Your task to perform on an android device: Go to display settings Image 0: 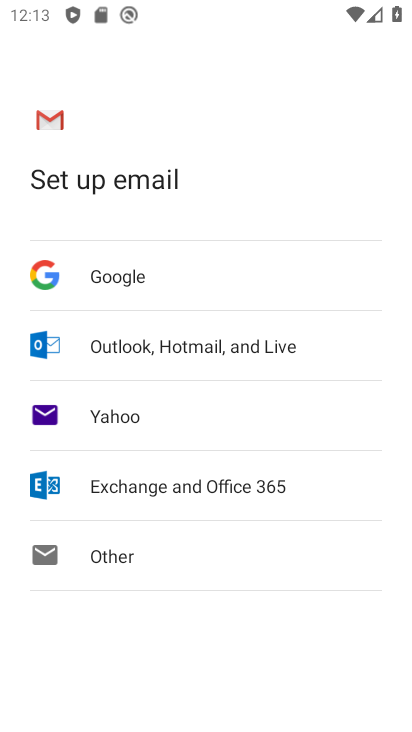
Step 0: press home button
Your task to perform on an android device: Go to display settings Image 1: 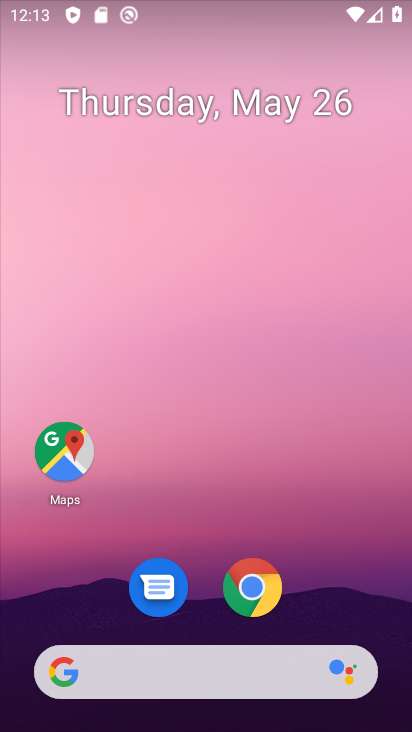
Step 1: drag from (385, 581) to (384, 280)
Your task to perform on an android device: Go to display settings Image 2: 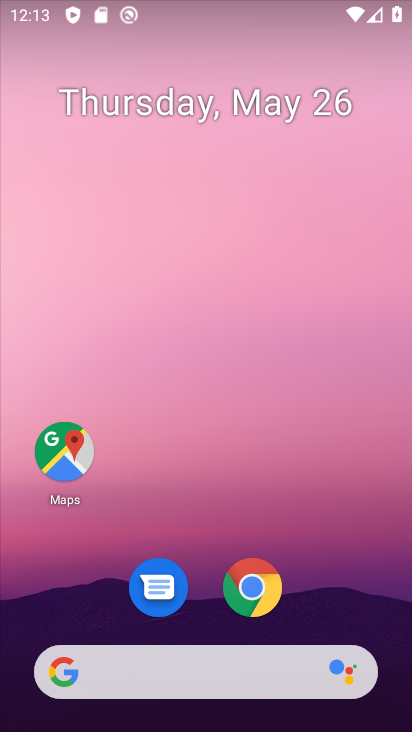
Step 2: drag from (365, 622) to (374, 171)
Your task to perform on an android device: Go to display settings Image 3: 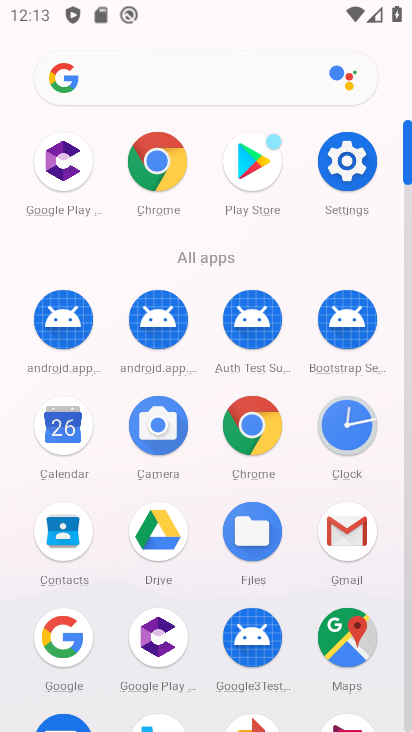
Step 3: click (350, 172)
Your task to perform on an android device: Go to display settings Image 4: 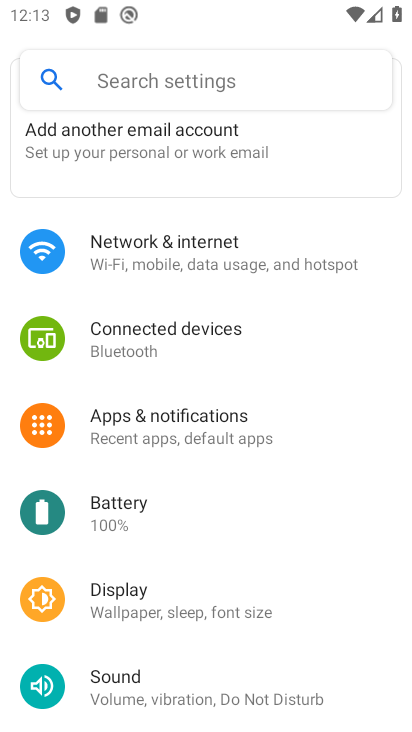
Step 4: drag from (337, 529) to (357, 424)
Your task to perform on an android device: Go to display settings Image 5: 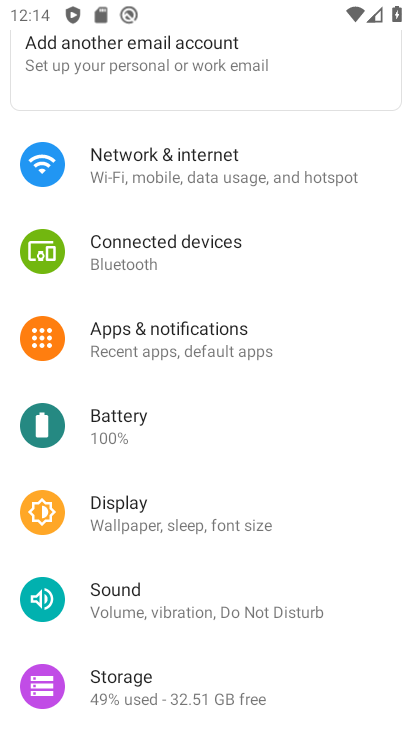
Step 5: drag from (356, 610) to (356, 482)
Your task to perform on an android device: Go to display settings Image 6: 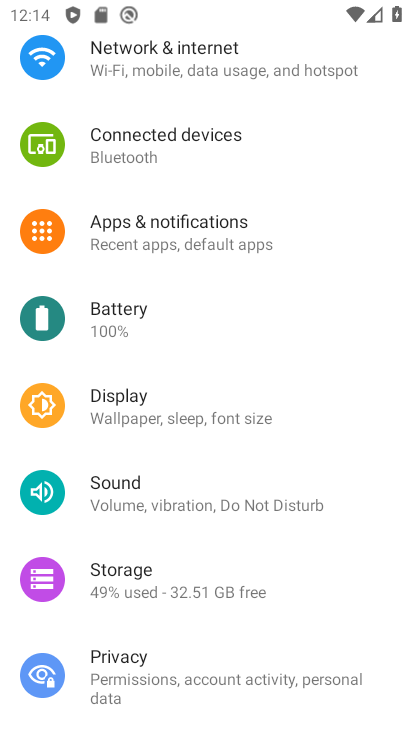
Step 6: drag from (341, 624) to (359, 520)
Your task to perform on an android device: Go to display settings Image 7: 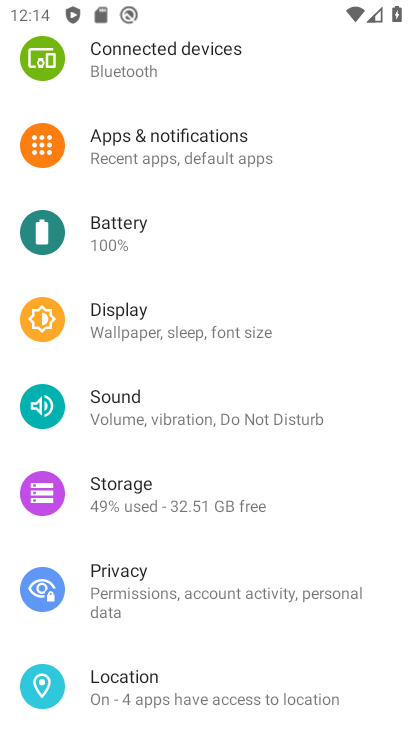
Step 7: drag from (368, 626) to (372, 519)
Your task to perform on an android device: Go to display settings Image 8: 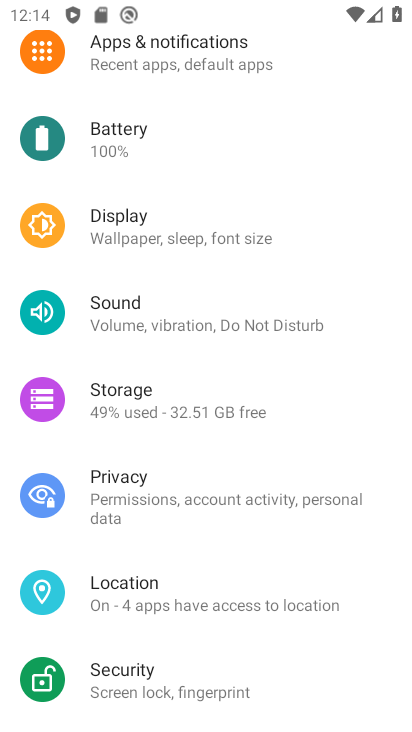
Step 8: drag from (365, 604) to (370, 511)
Your task to perform on an android device: Go to display settings Image 9: 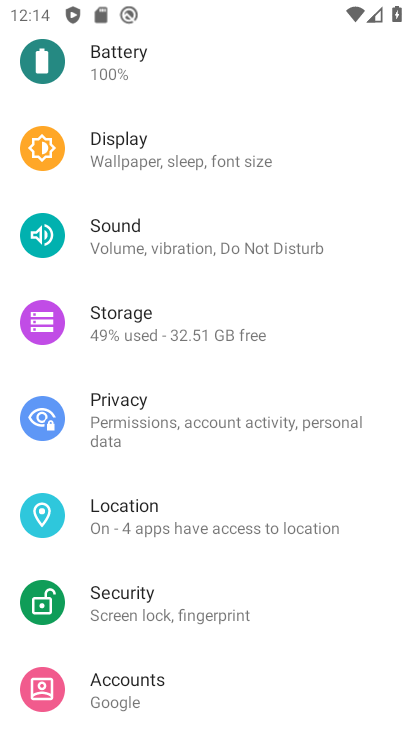
Step 9: drag from (370, 621) to (382, 534)
Your task to perform on an android device: Go to display settings Image 10: 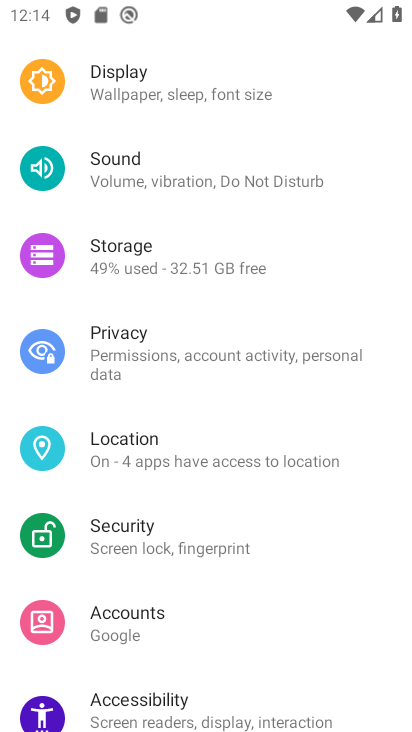
Step 10: drag from (384, 619) to (377, 492)
Your task to perform on an android device: Go to display settings Image 11: 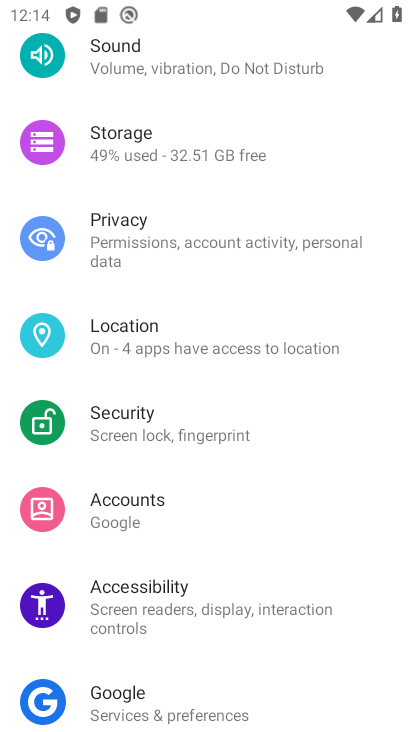
Step 11: drag from (376, 606) to (379, 499)
Your task to perform on an android device: Go to display settings Image 12: 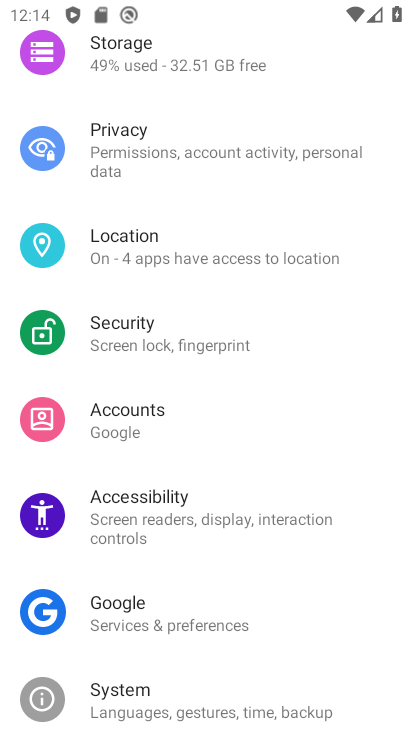
Step 12: drag from (354, 630) to (364, 539)
Your task to perform on an android device: Go to display settings Image 13: 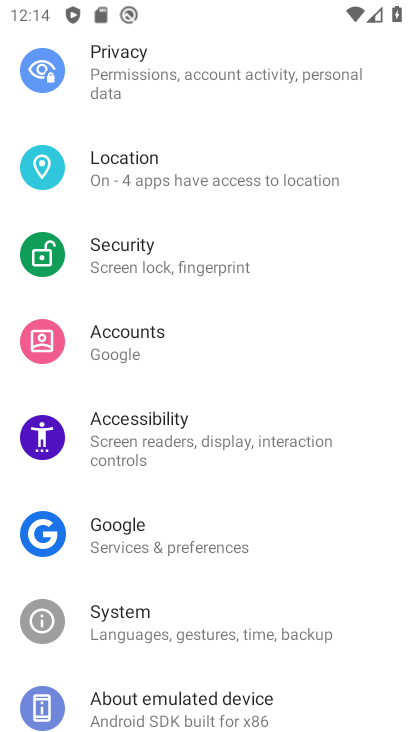
Step 13: drag from (372, 642) to (386, 531)
Your task to perform on an android device: Go to display settings Image 14: 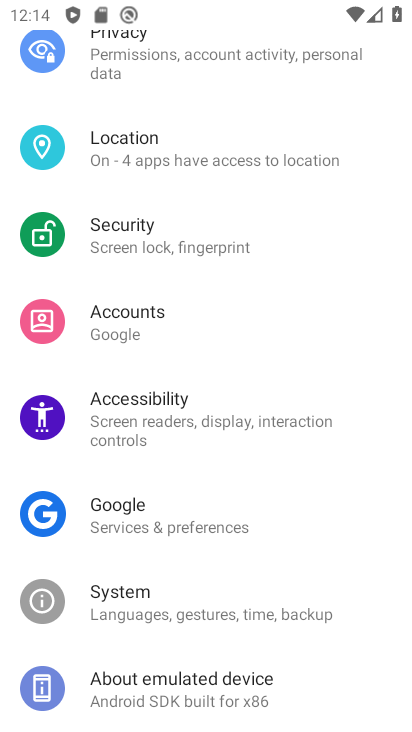
Step 14: drag from (375, 464) to (376, 571)
Your task to perform on an android device: Go to display settings Image 15: 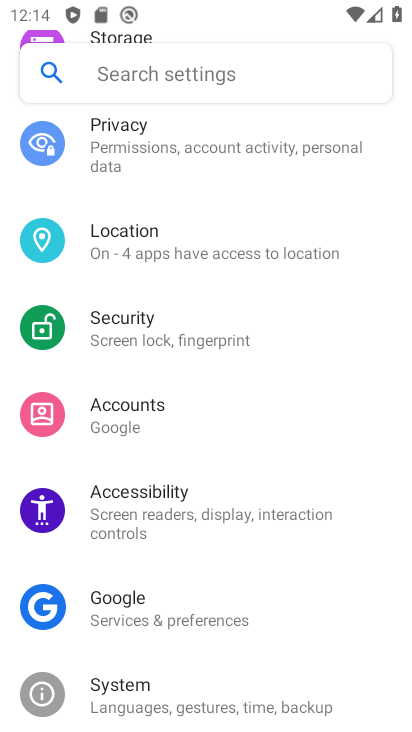
Step 15: drag from (361, 436) to (364, 538)
Your task to perform on an android device: Go to display settings Image 16: 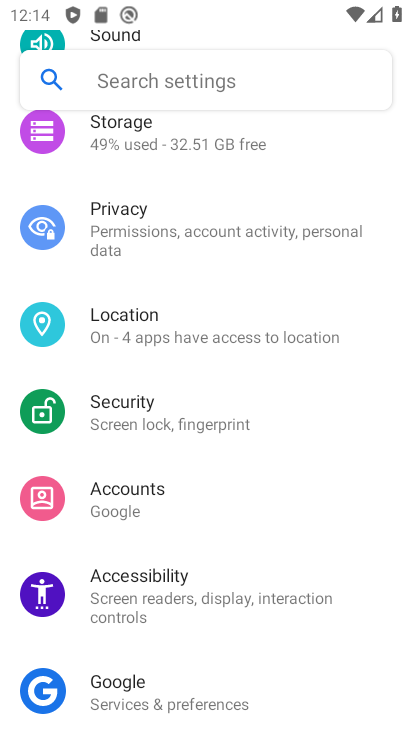
Step 16: drag from (362, 445) to (354, 556)
Your task to perform on an android device: Go to display settings Image 17: 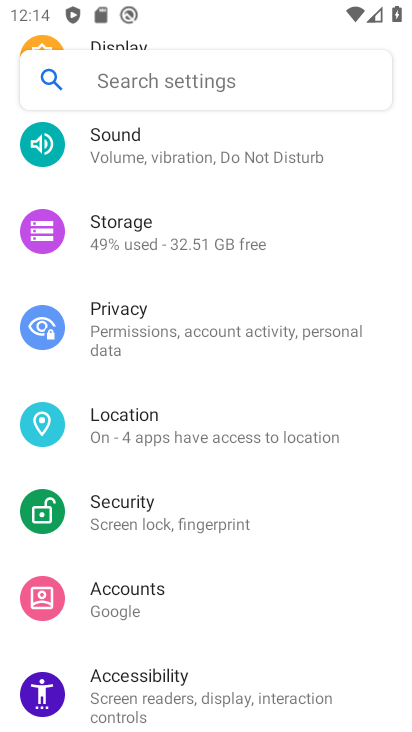
Step 17: drag from (356, 476) to (351, 558)
Your task to perform on an android device: Go to display settings Image 18: 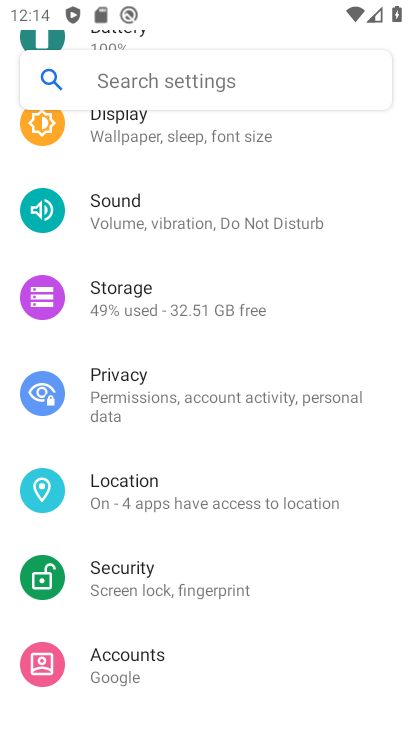
Step 18: drag from (362, 451) to (368, 550)
Your task to perform on an android device: Go to display settings Image 19: 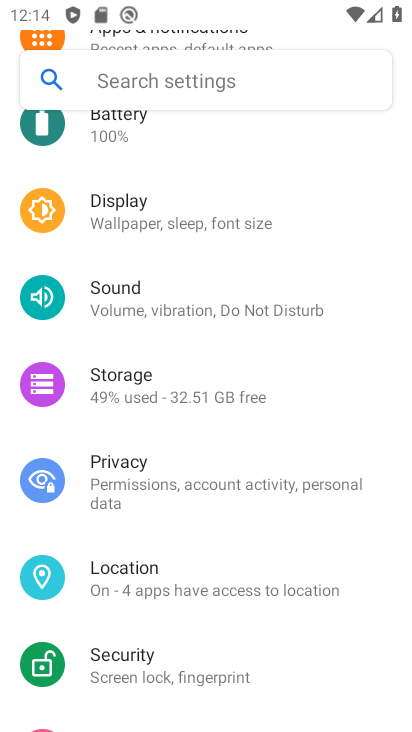
Step 19: drag from (370, 436) to (374, 537)
Your task to perform on an android device: Go to display settings Image 20: 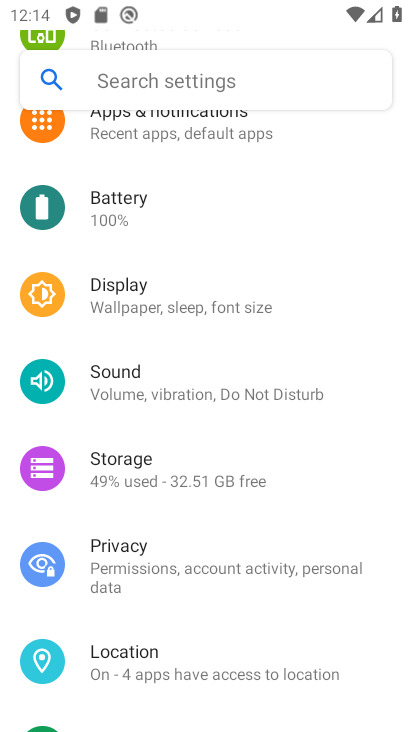
Step 20: drag from (367, 431) to (374, 533)
Your task to perform on an android device: Go to display settings Image 21: 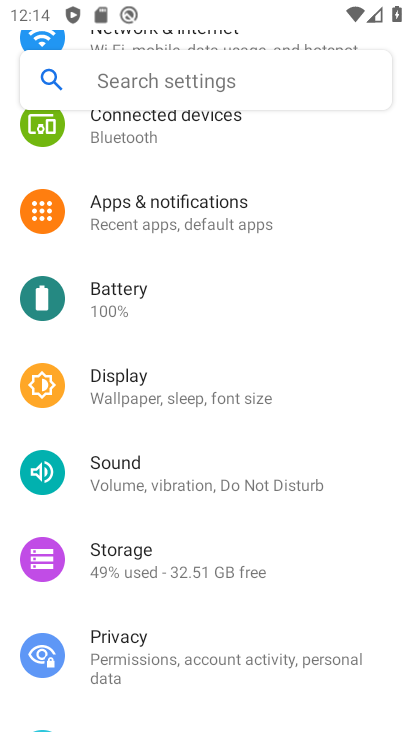
Step 21: drag from (370, 440) to (371, 526)
Your task to perform on an android device: Go to display settings Image 22: 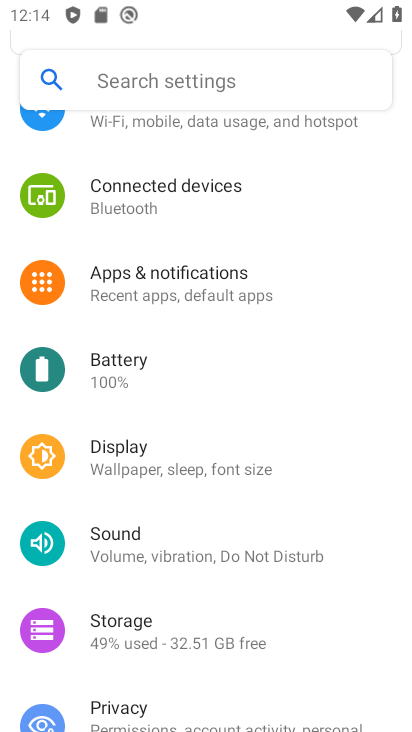
Step 22: drag from (370, 456) to (373, 594)
Your task to perform on an android device: Go to display settings Image 23: 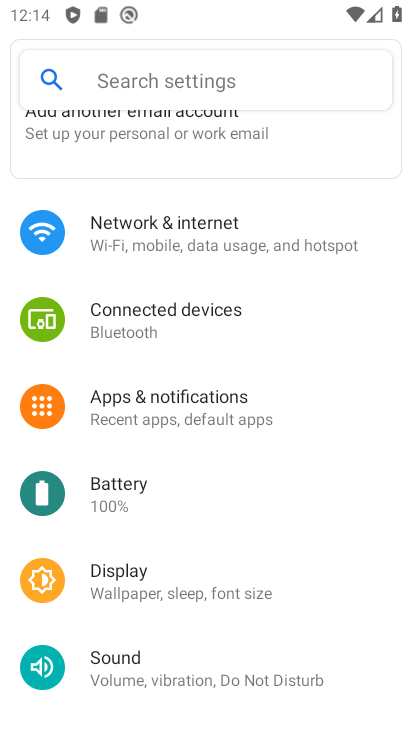
Step 23: click (252, 593)
Your task to perform on an android device: Go to display settings Image 24: 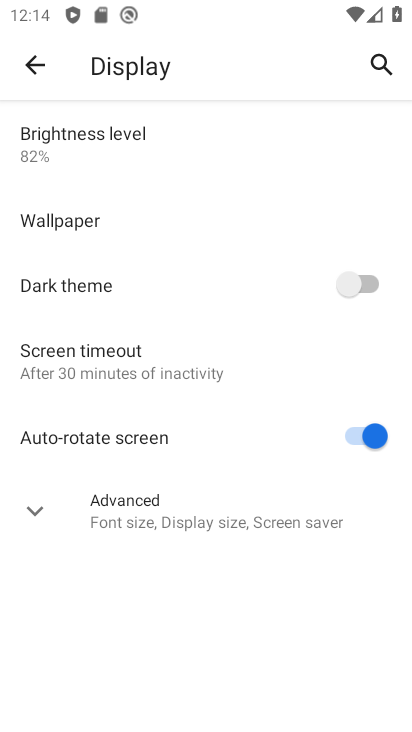
Step 24: click (281, 528)
Your task to perform on an android device: Go to display settings Image 25: 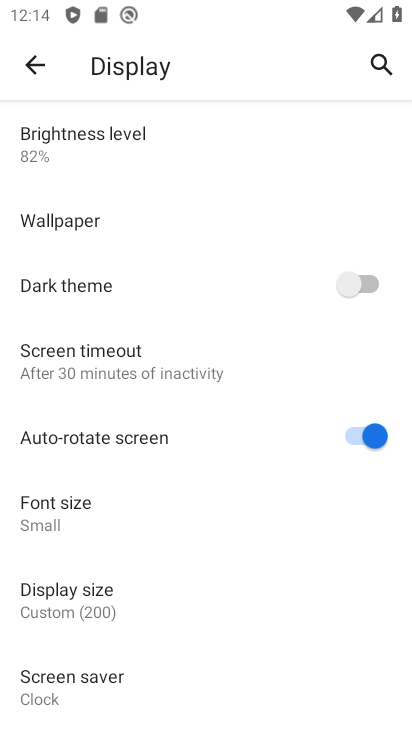
Step 25: task complete